Your task to perform on an android device: Go to Google maps Image 0: 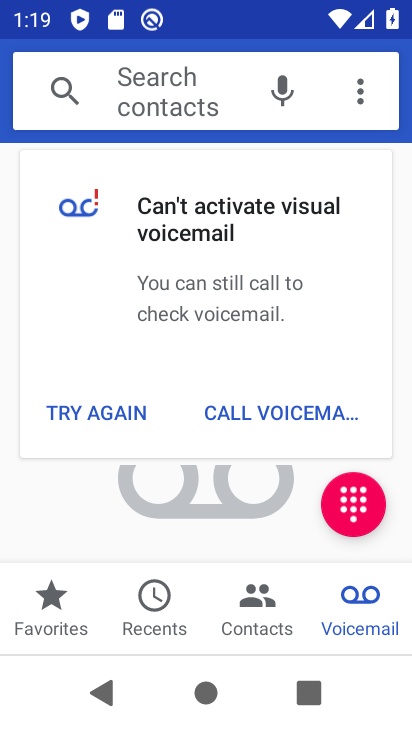
Step 0: press home button
Your task to perform on an android device: Go to Google maps Image 1: 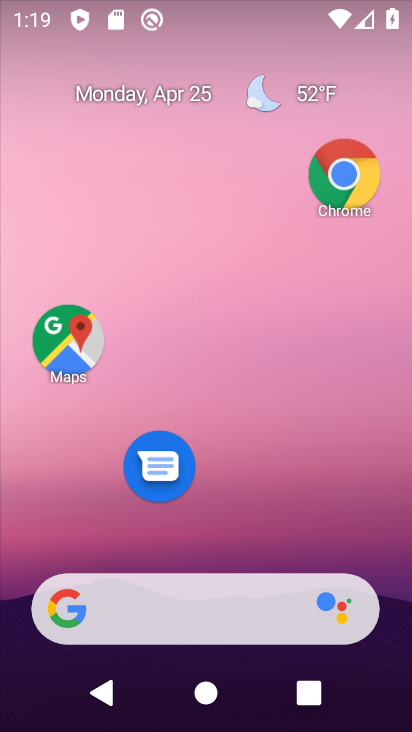
Step 1: drag from (277, 479) to (180, 0)
Your task to perform on an android device: Go to Google maps Image 2: 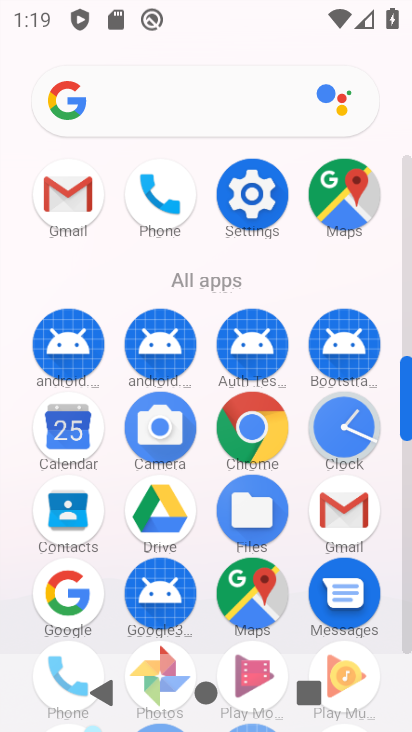
Step 2: click (255, 594)
Your task to perform on an android device: Go to Google maps Image 3: 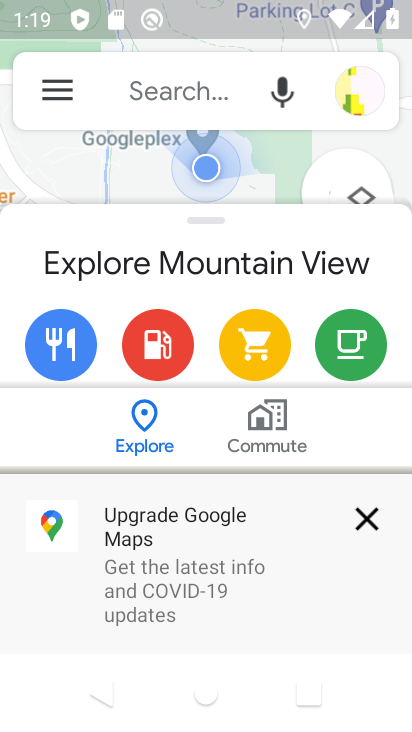
Step 3: task complete